Your task to perform on an android device: turn off sleep mode Image 0: 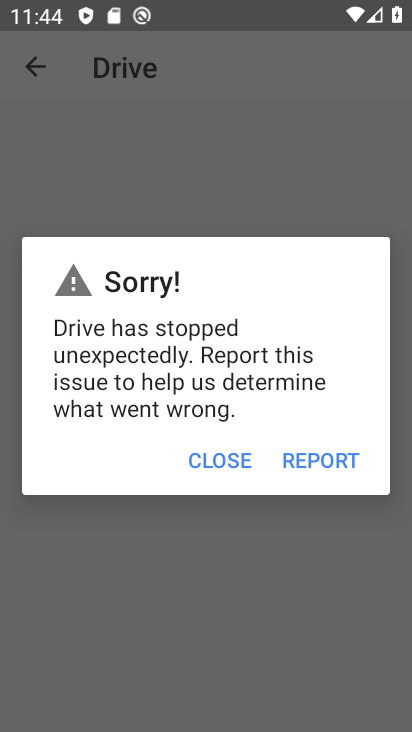
Step 0: press home button
Your task to perform on an android device: turn off sleep mode Image 1: 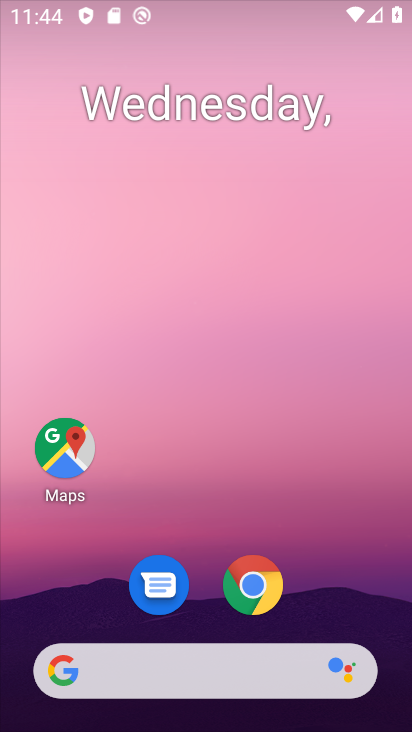
Step 1: drag from (237, 507) to (207, 91)
Your task to perform on an android device: turn off sleep mode Image 2: 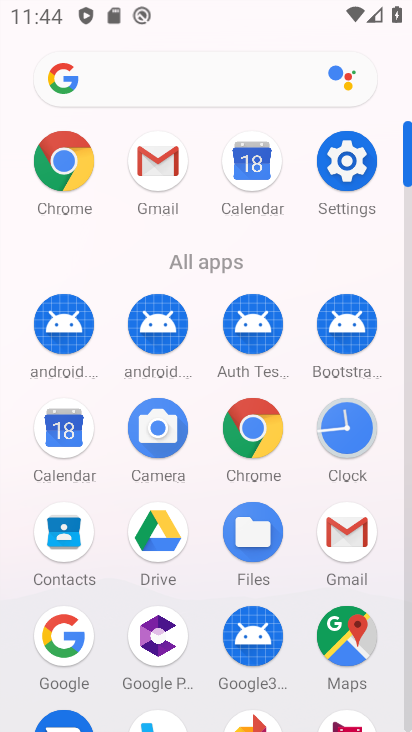
Step 2: click (328, 157)
Your task to perform on an android device: turn off sleep mode Image 3: 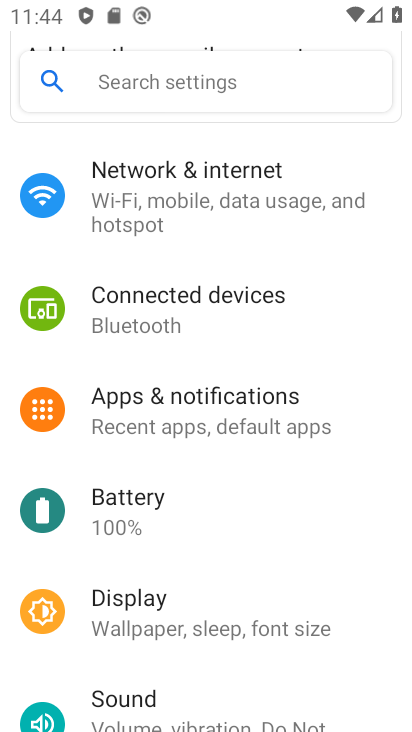
Step 3: click (241, 605)
Your task to perform on an android device: turn off sleep mode Image 4: 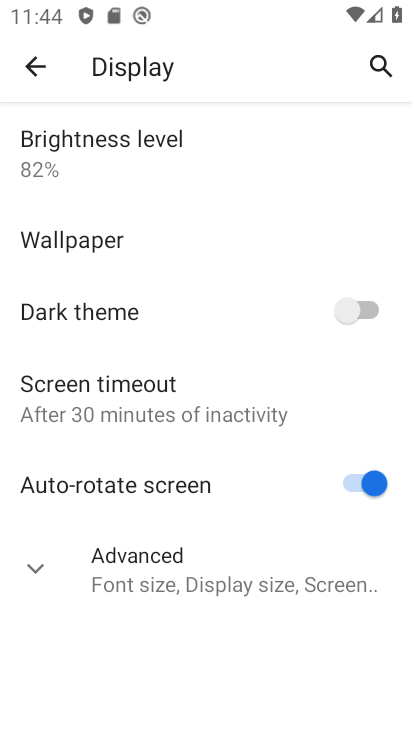
Step 4: click (35, 570)
Your task to perform on an android device: turn off sleep mode Image 5: 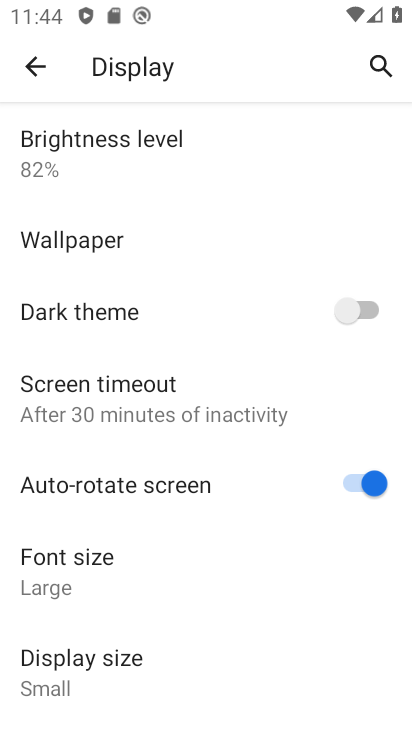
Step 5: task complete